Your task to perform on an android device: turn pop-ups off in chrome Image 0: 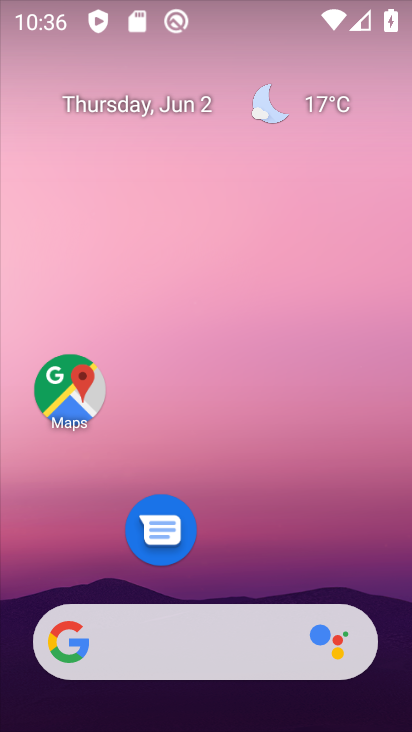
Step 0: drag from (260, 680) to (188, 37)
Your task to perform on an android device: turn pop-ups off in chrome Image 1: 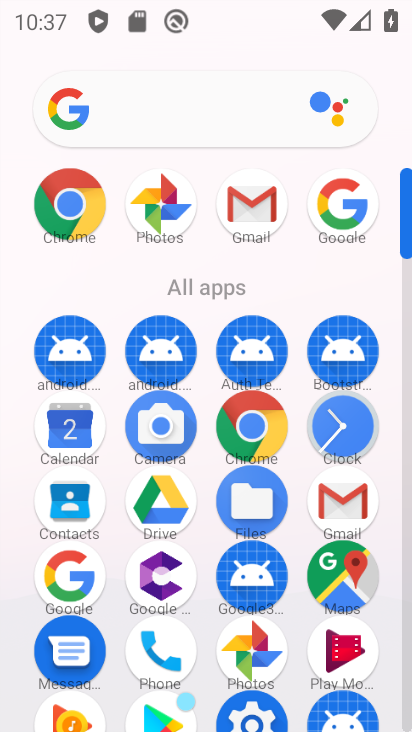
Step 1: click (69, 218)
Your task to perform on an android device: turn pop-ups off in chrome Image 2: 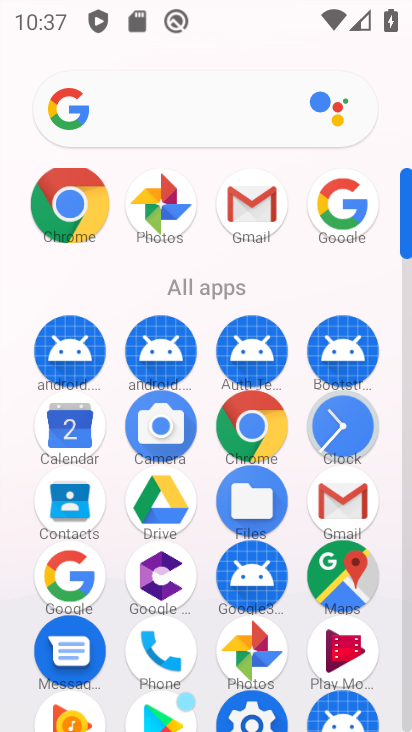
Step 2: click (77, 214)
Your task to perform on an android device: turn pop-ups off in chrome Image 3: 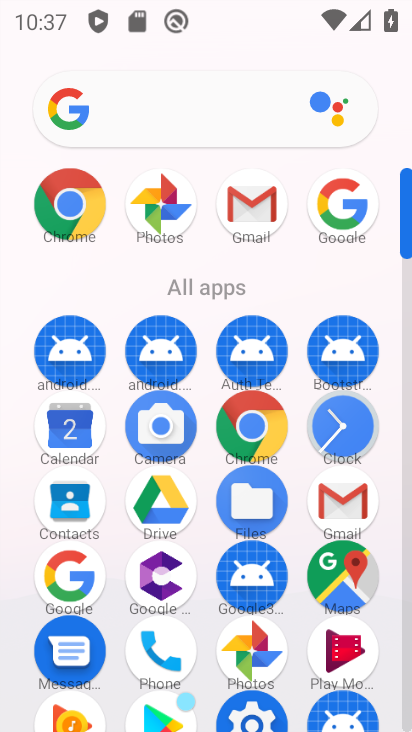
Step 3: click (79, 215)
Your task to perform on an android device: turn pop-ups off in chrome Image 4: 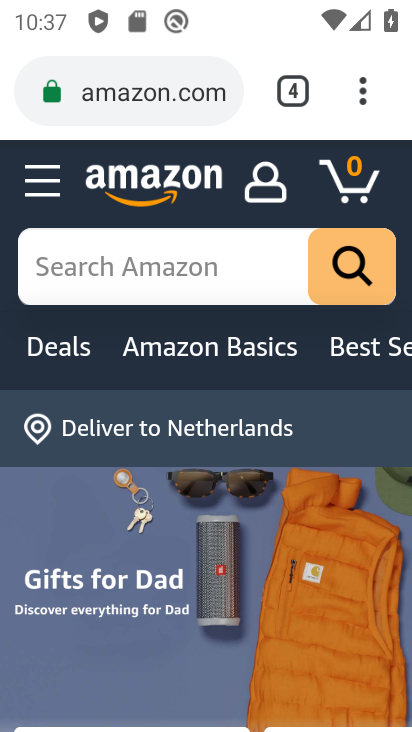
Step 4: click (371, 106)
Your task to perform on an android device: turn pop-ups off in chrome Image 5: 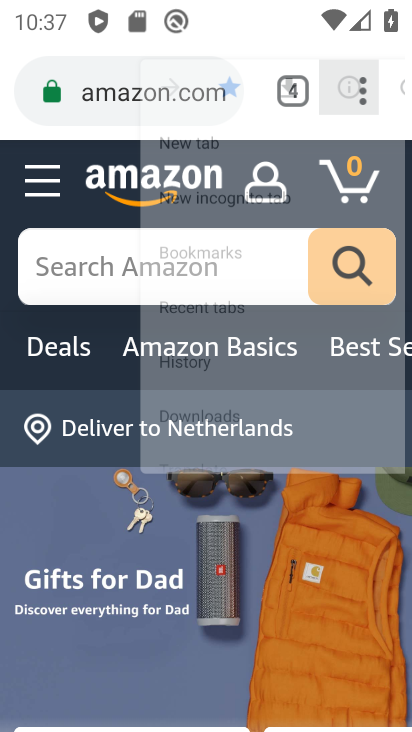
Step 5: click (359, 96)
Your task to perform on an android device: turn pop-ups off in chrome Image 6: 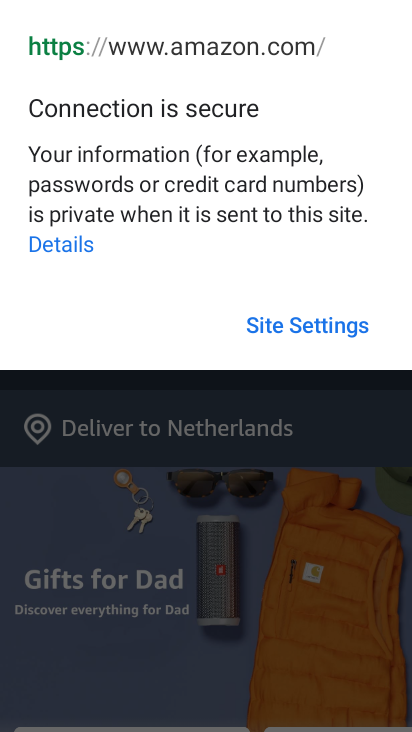
Step 6: drag from (358, 95) to (341, 128)
Your task to perform on an android device: turn pop-ups off in chrome Image 7: 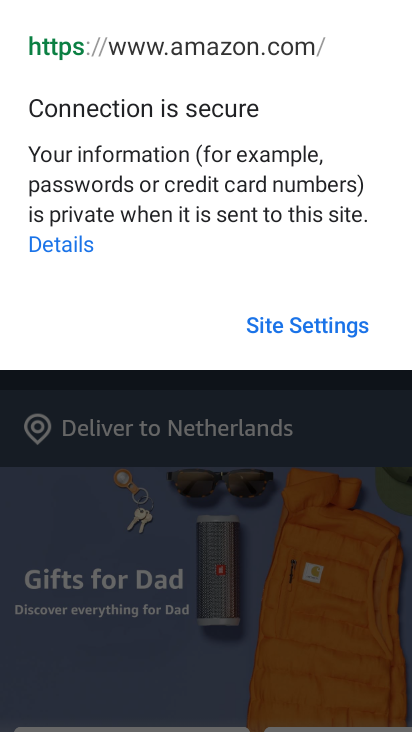
Step 7: click (278, 510)
Your task to perform on an android device: turn pop-ups off in chrome Image 8: 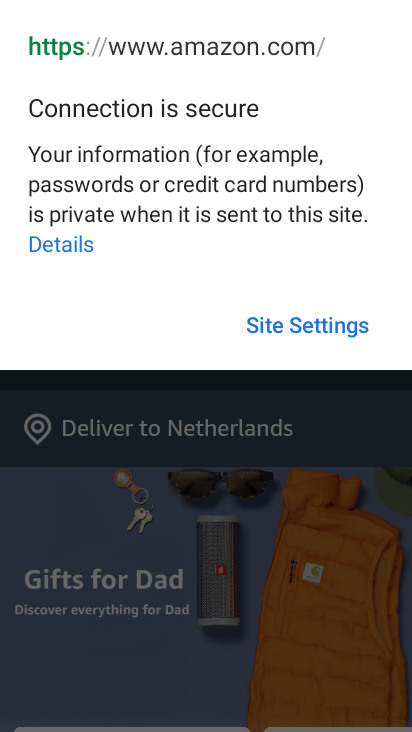
Step 8: click (275, 506)
Your task to perform on an android device: turn pop-ups off in chrome Image 9: 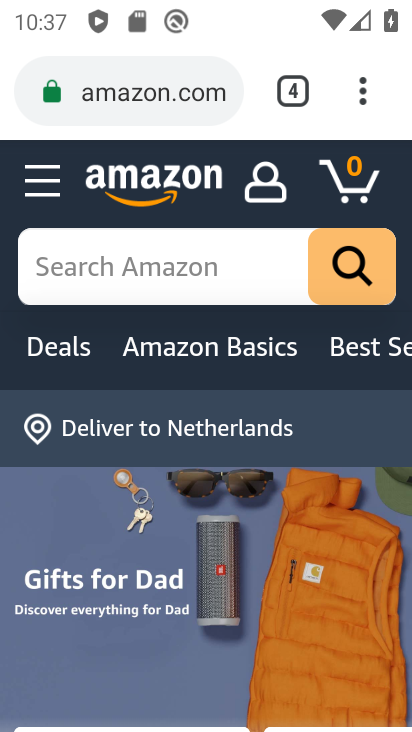
Step 9: drag from (363, 90) to (141, 708)
Your task to perform on an android device: turn pop-ups off in chrome Image 10: 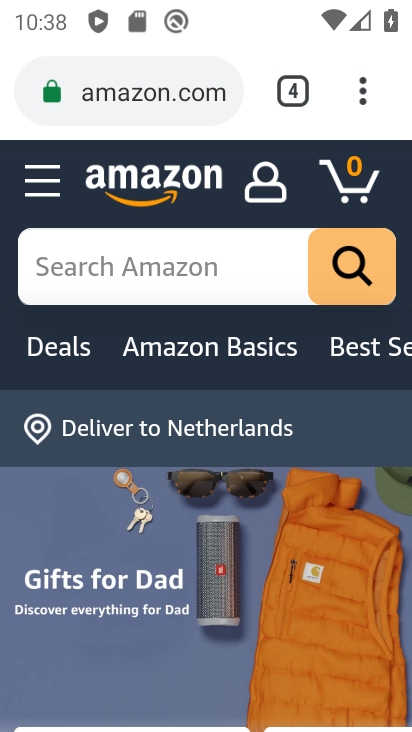
Step 10: click (80, 199)
Your task to perform on an android device: turn pop-ups off in chrome Image 11: 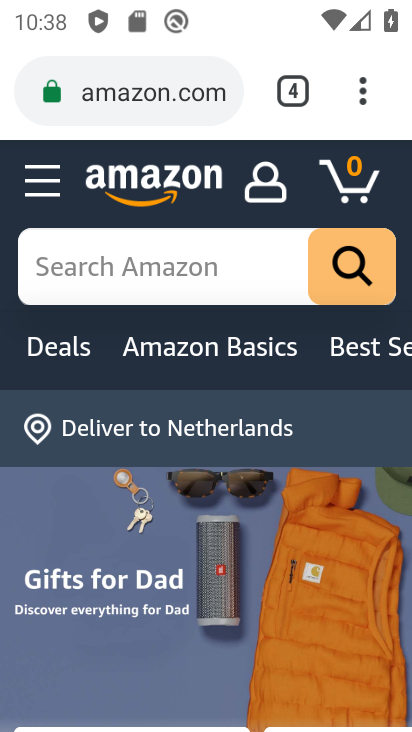
Step 11: click (78, 599)
Your task to perform on an android device: turn pop-ups off in chrome Image 12: 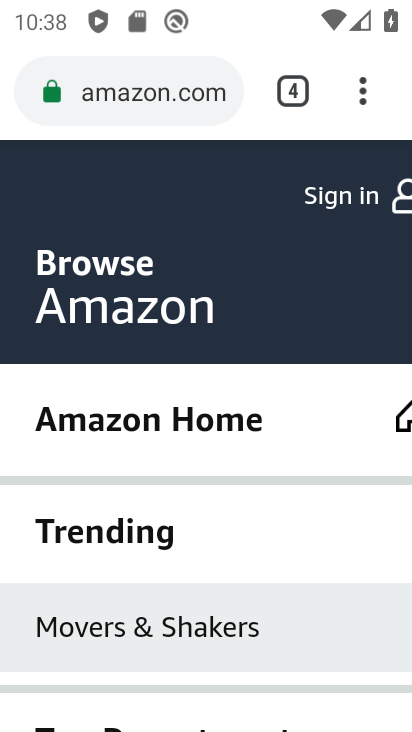
Step 12: click (83, 551)
Your task to perform on an android device: turn pop-ups off in chrome Image 13: 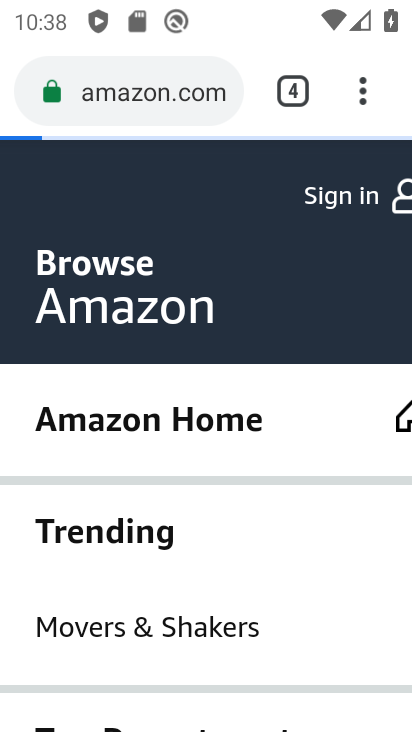
Step 13: drag from (358, 96) to (92, 561)
Your task to perform on an android device: turn pop-ups off in chrome Image 14: 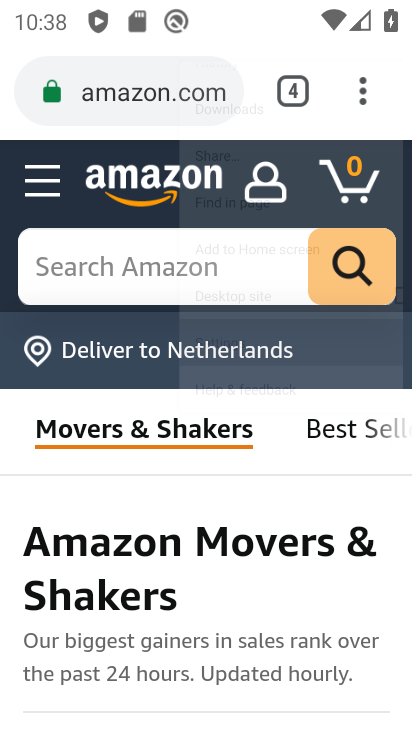
Step 14: click (86, 566)
Your task to perform on an android device: turn pop-ups off in chrome Image 15: 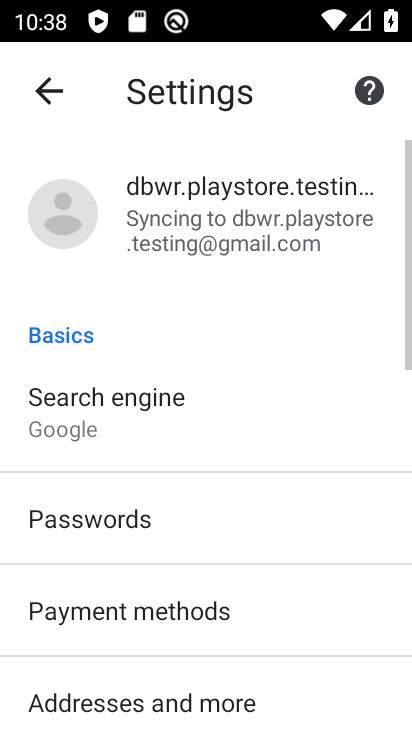
Step 15: drag from (190, 450) to (189, 15)
Your task to perform on an android device: turn pop-ups off in chrome Image 16: 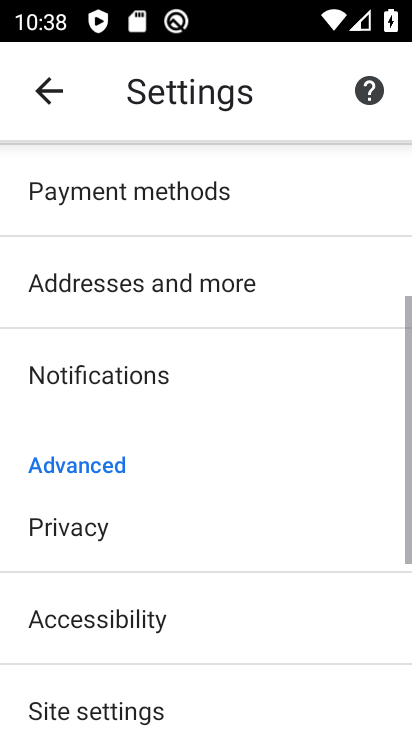
Step 16: drag from (179, 368) to (157, 42)
Your task to perform on an android device: turn pop-ups off in chrome Image 17: 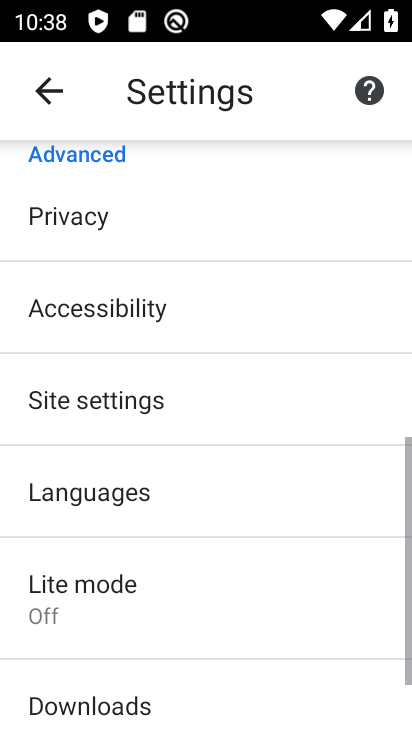
Step 17: drag from (137, 423) to (78, 16)
Your task to perform on an android device: turn pop-ups off in chrome Image 18: 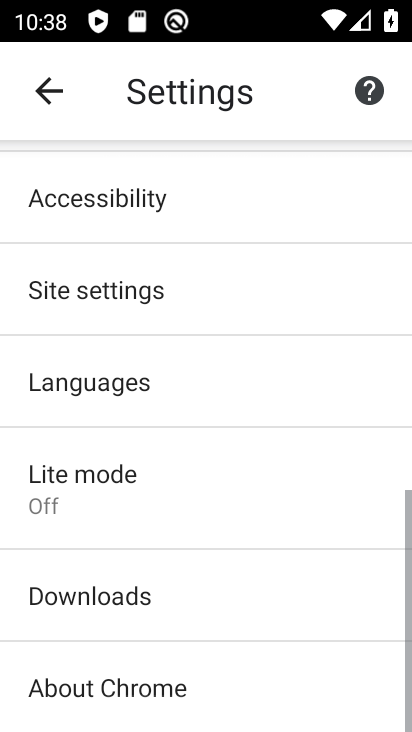
Step 18: drag from (105, 467) to (81, 85)
Your task to perform on an android device: turn pop-ups off in chrome Image 19: 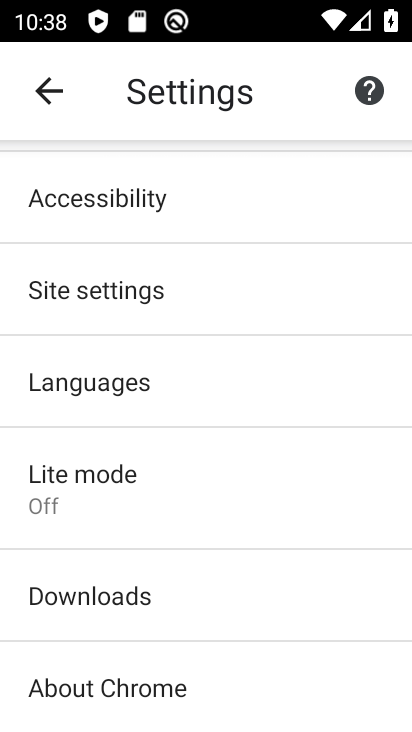
Step 19: click (80, 288)
Your task to perform on an android device: turn pop-ups off in chrome Image 20: 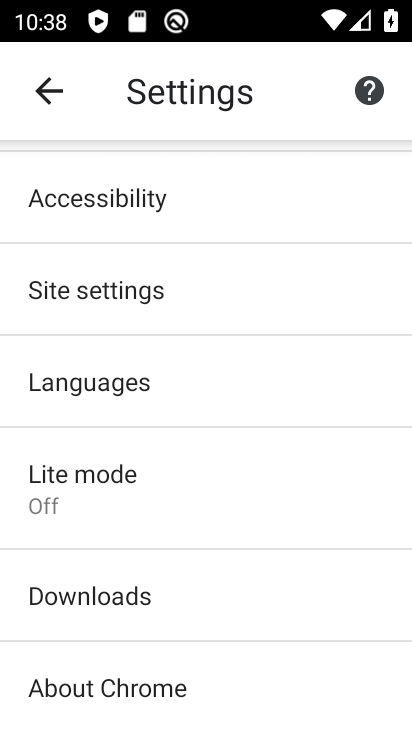
Step 20: click (80, 288)
Your task to perform on an android device: turn pop-ups off in chrome Image 21: 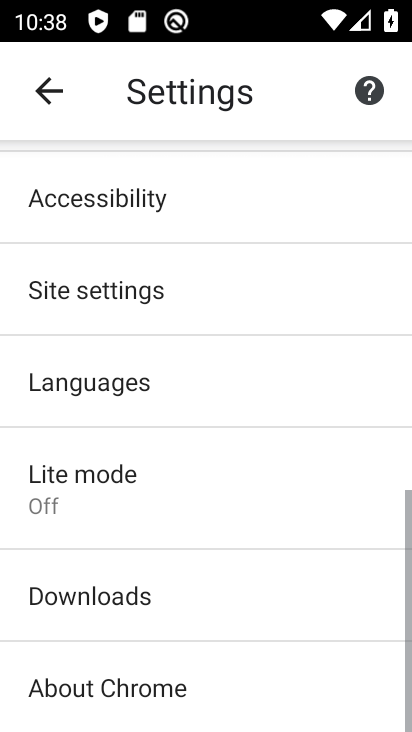
Step 21: click (81, 288)
Your task to perform on an android device: turn pop-ups off in chrome Image 22: 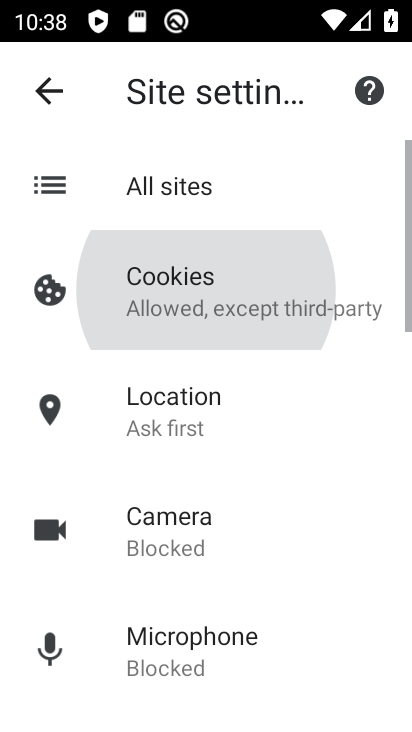
Step 22: click (83, 288)
Your task to perform on an android device: turn pop-ups off in chrome Image 23: 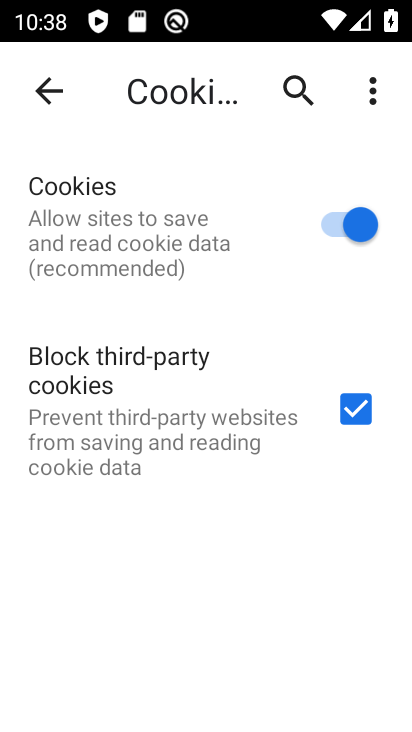
Step 23: click (37, 74)
Your task to perform on an android device: turn pop-ups off in chrome Image 24: 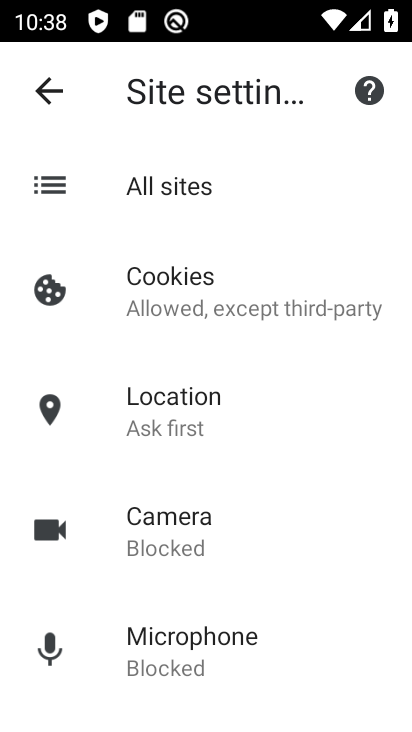
Step 24: drag from (231, 626) to (260, 161)
Your task to perform on an android device: turn pop-ups off in chrome Image 25: 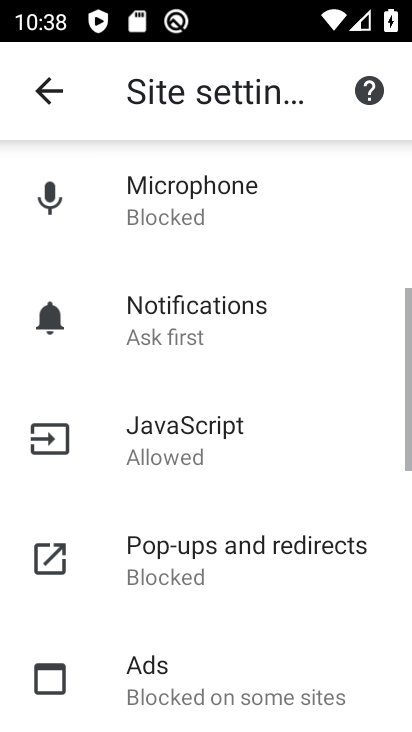
Step 25: drag from (291, 496) to (199, 120)
Your task to perform on an android device: turn pop-ups off in chrome Image 26: 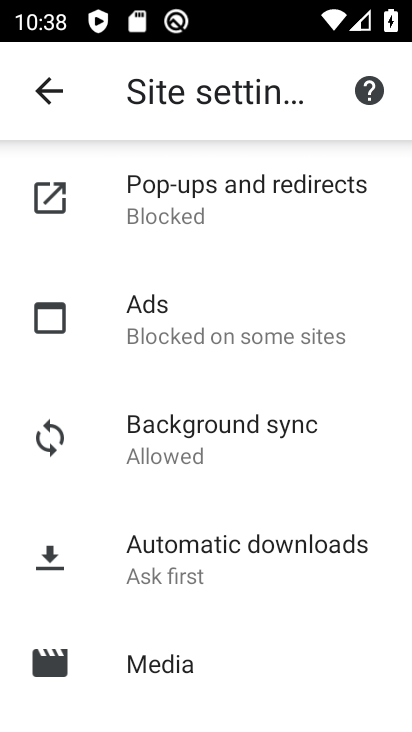
Step 26: click (182, 205)
Your task to perform on an android device: turn pop-ups off in chrome Image 27: 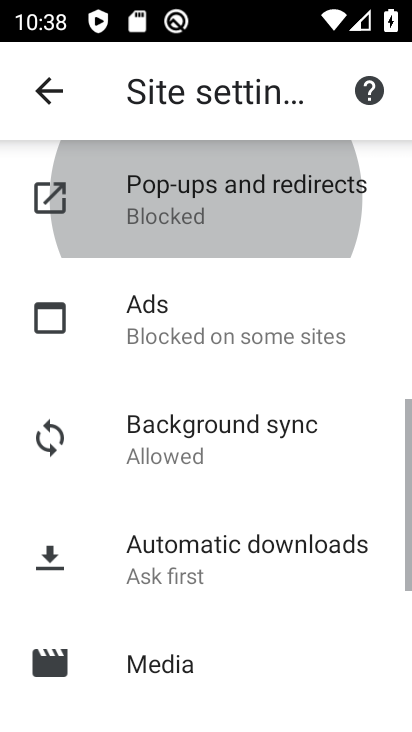
Step 27: click (182, 205)
Your task to perform on an android device: turn pop-ups off in chrome Image 28: 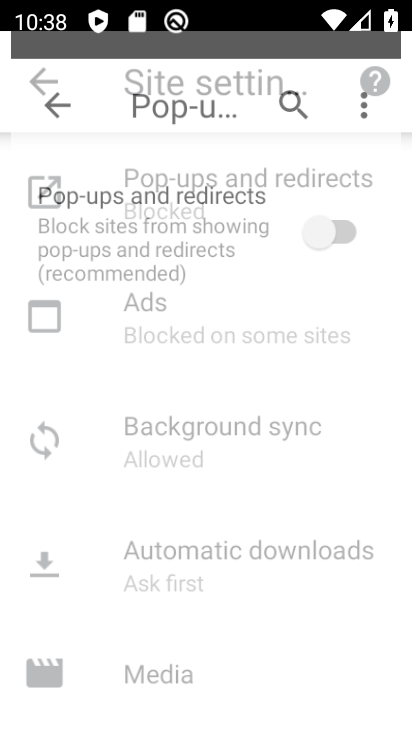
Step 28: click (174, 209)
Your task to perform on an android device: turn pop-ups off in chrome Image 29: 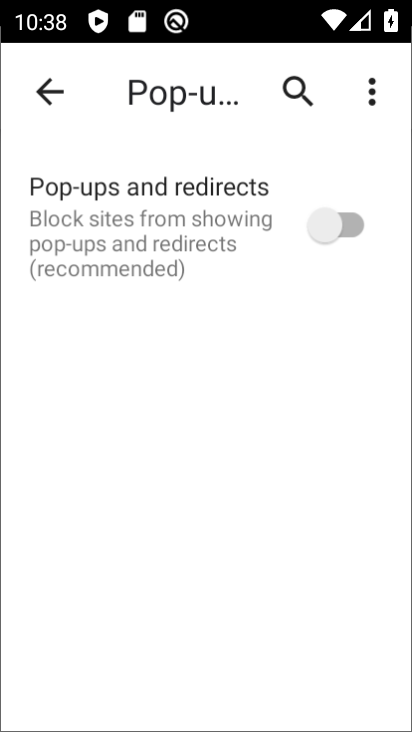
Step 29: click (174, 209)
Your task to perform on an android device: turn pop-ups off in chrome Image 30: 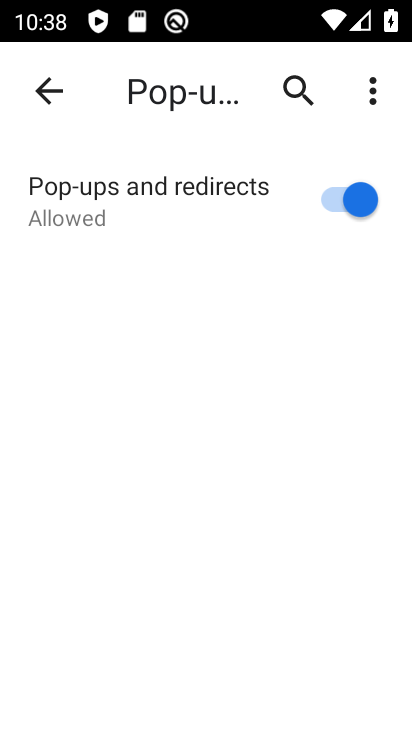
Step 30: task complete